Your task to perform on an android device: toggle javascript in the chrome app Image 0: 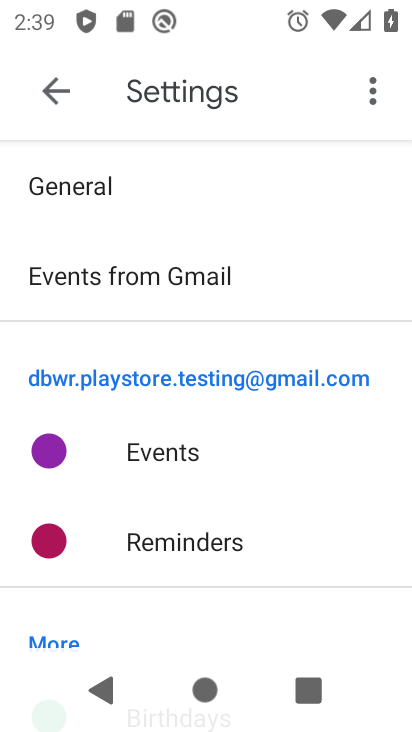
Step 0: press home button
Your task to perform on an android device: toggle javascript in the chrome app Image 1: 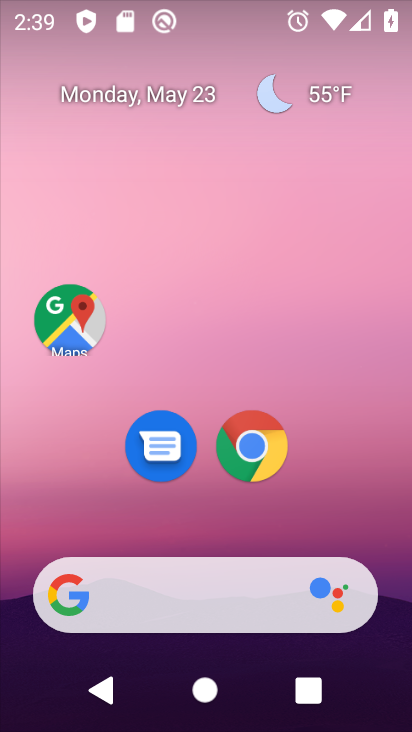
Step 1: click (259, 444)
Your task to perform on an android device: toggle javascript in the chrome app Image 2: 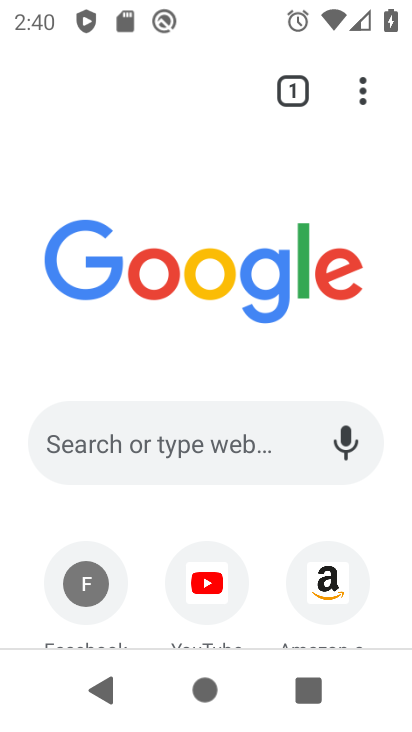
Step 2: click (352, 85)
Your task to perform on an android device: toggle javascript in the chrome app Image 3: 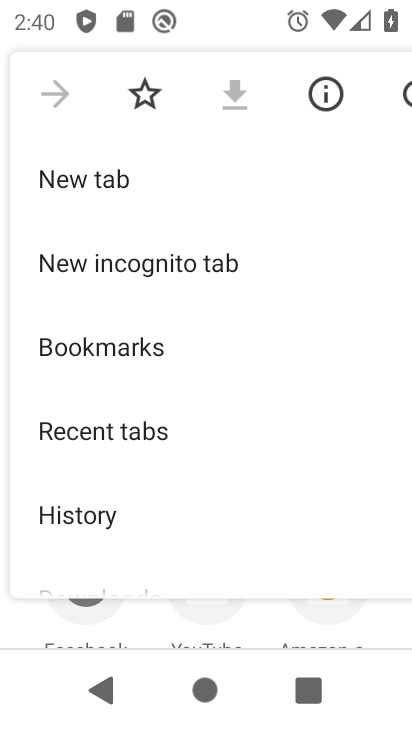
Step 3: drag from (206, 483) to (209, 234)
Your task to perform on an android device: toggle javascript in the chrome app Image 4: 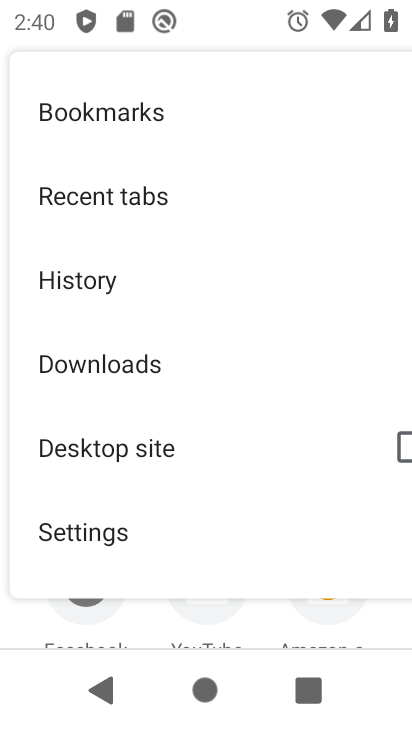
Step 4: drag from (116, 508) to (139, 349)
Your task to perform on an android device: toggle javascript in the chrome app Image 5: 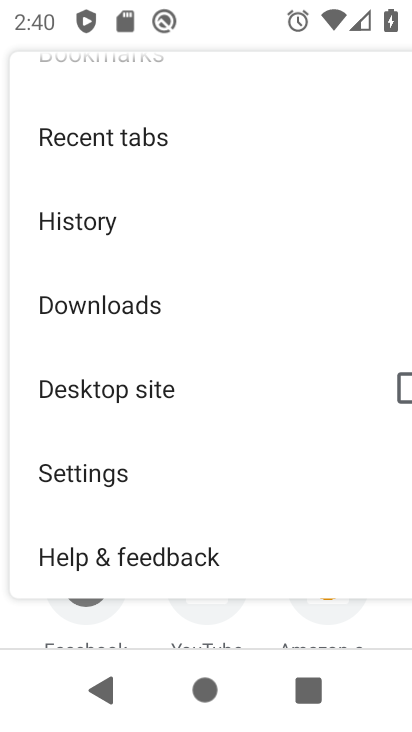
Step 5: click (103, 486)
Your task to perform on an android device: toggle javascript in the chrome app Image 6: 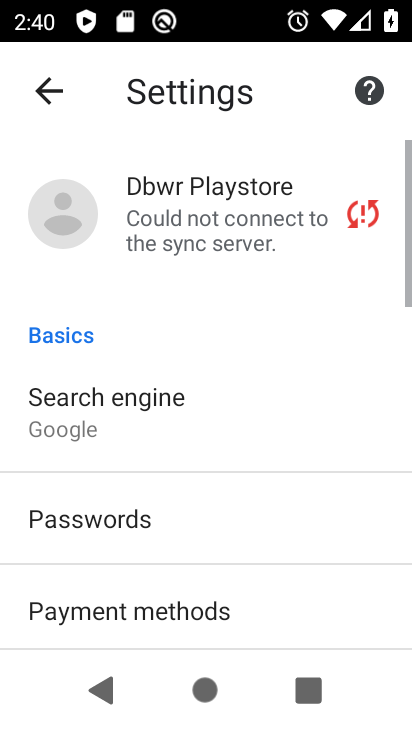
Step 6: drag from (140, 561) to (145, 252)
Your task to perform on an android device: toggle javascript in the chrome app Image 7: 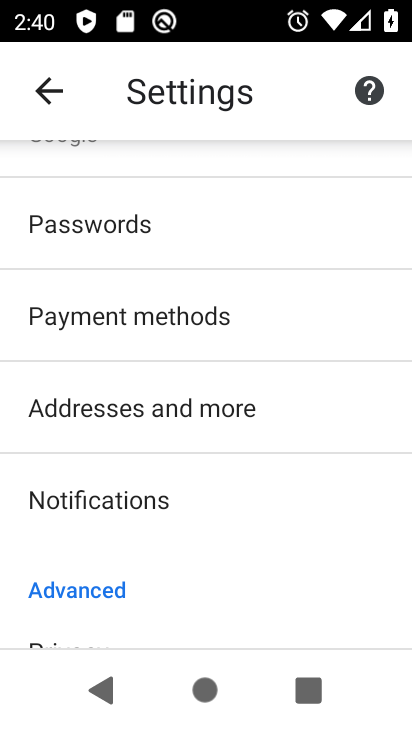
Step 7: drag from (151, 515) to (161, 226)
Your task to perform on an android device: toggle javascript in the chrome app Image 8: 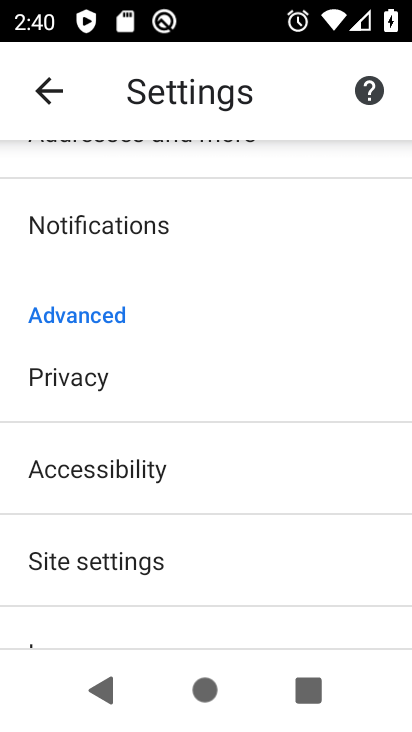
Step 8: click (147, 554)
Your task to perform on an android device: toggle javascript in the chrome app Image 9: 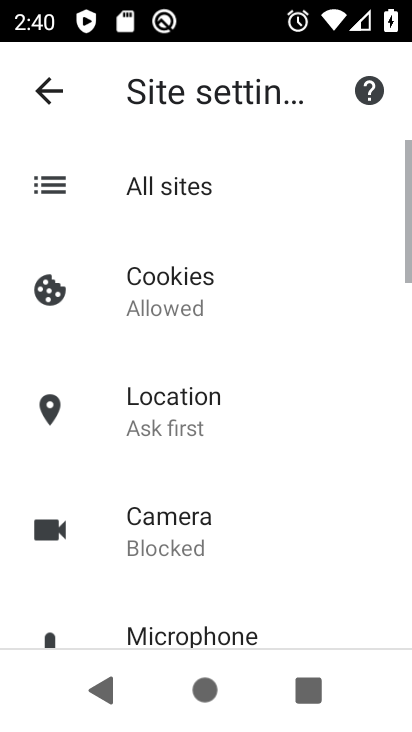
Step 9: drag from (152, 551) to (188, 281)
Your task to perform on an android device: toggle javascript in the chrome app Image 10: 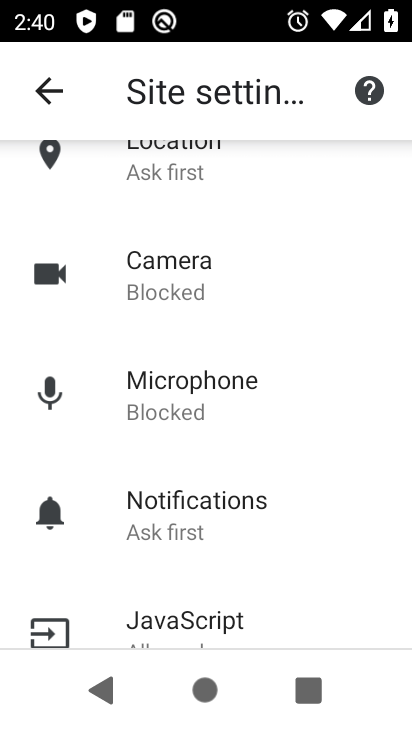
Step 10: click (187, 613)
Your task to perform on an android device: toggle javascript in the chrome app Image 11: 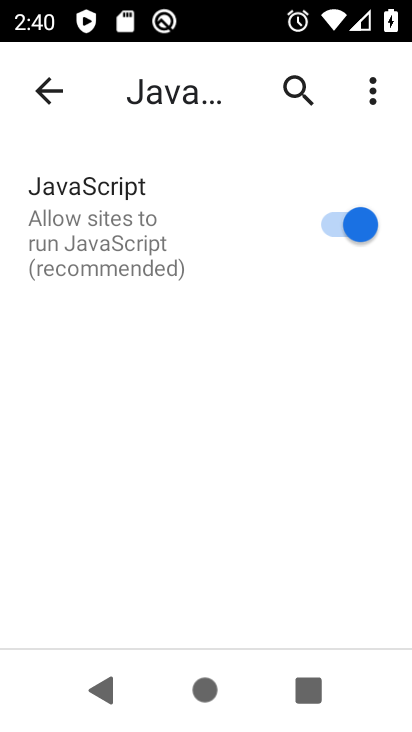
Step 11: click (335, 211)
Your task to perform on an android device: toggle javascript in the chrome app Image 12: 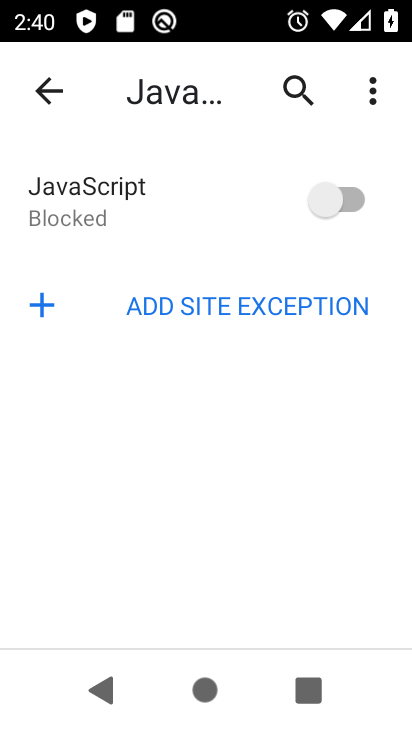
Step 12: task complete